Your task to perform on an android device: Go to battery settings Image 0: 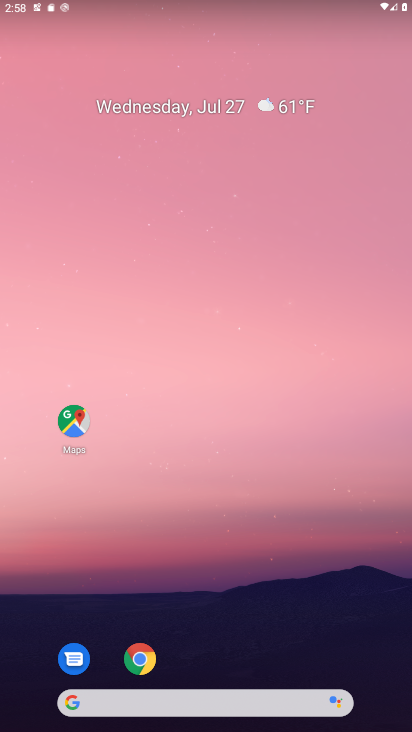
Step 0: click (299, 629)
Your task to perform on an android device: Go to battery settings Image 1: 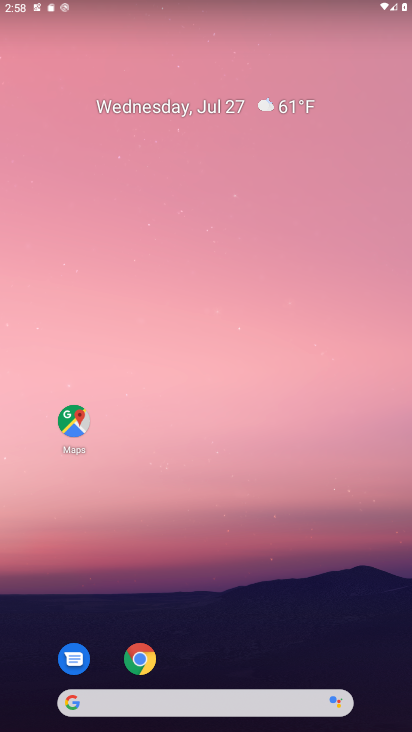
Step 1: drag from (190, 697) to (186, 93)
Your task to perform on an android device: Go to battery settings Image 2: 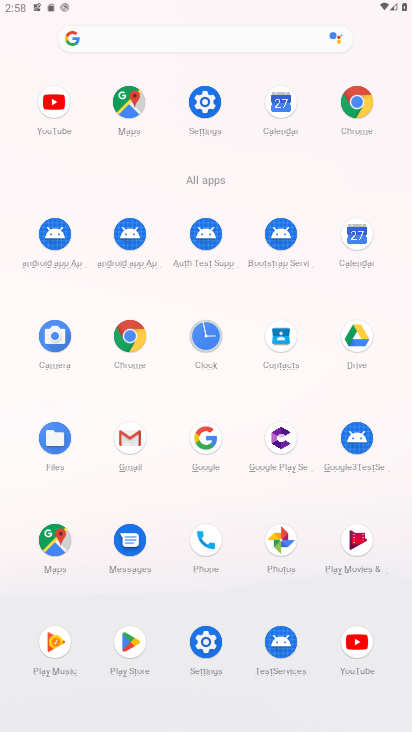
Step 2: click (207, 640)
Your task to perform on an android device: Go to battery settings Image 3: 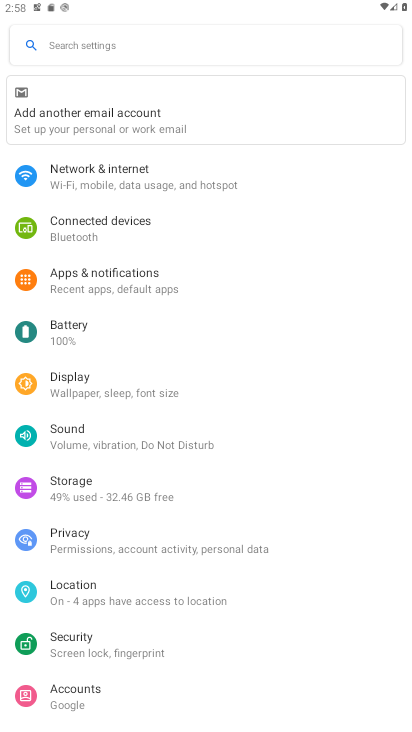
Step 3: click (72, 326)
Your task to perform on an android device: Go to battery settings Image 4: 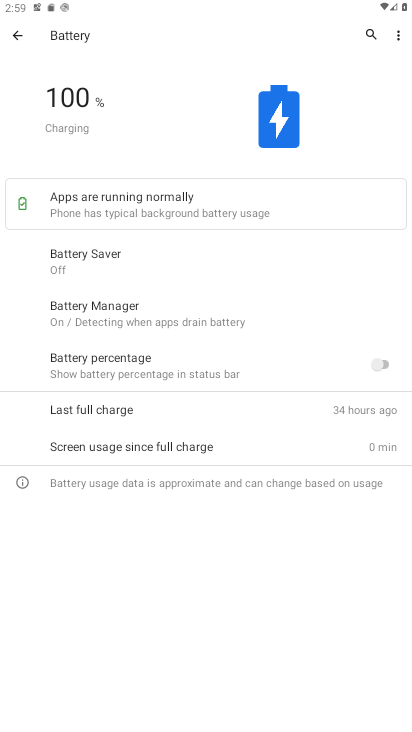
Step 4: task complete